Your task to perform on an android device: Search for seafood restaurants on Google Maps Image 0: 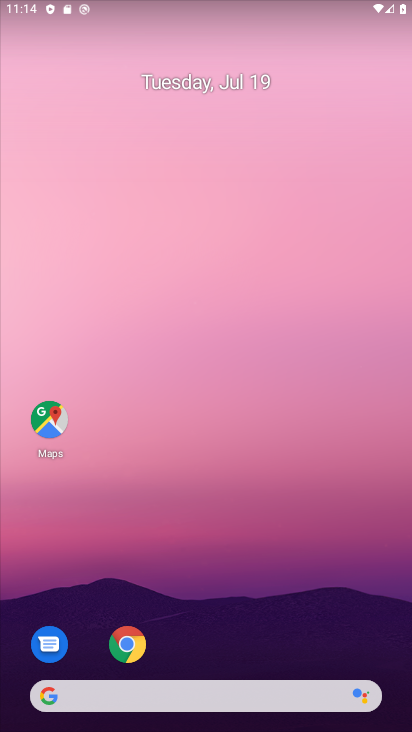
Step 0: press home button
Your task to perform on an android device: Search for seafood restaurants on Google Maps Image 1: 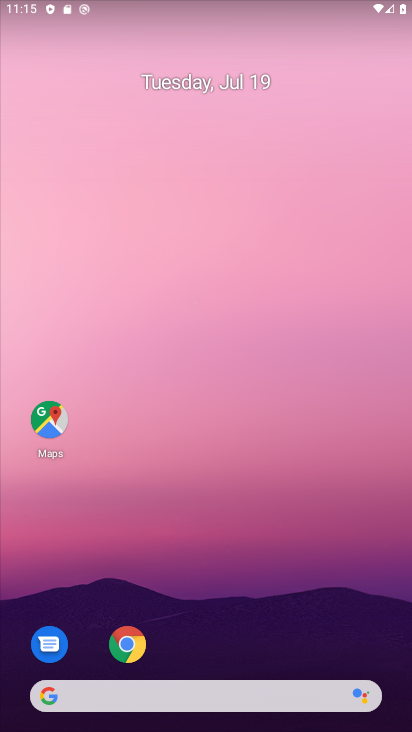
Step 1: click (286, 600)
Your task to perform on an android device: Search for seafood restaurants on Google Maps Image 2: 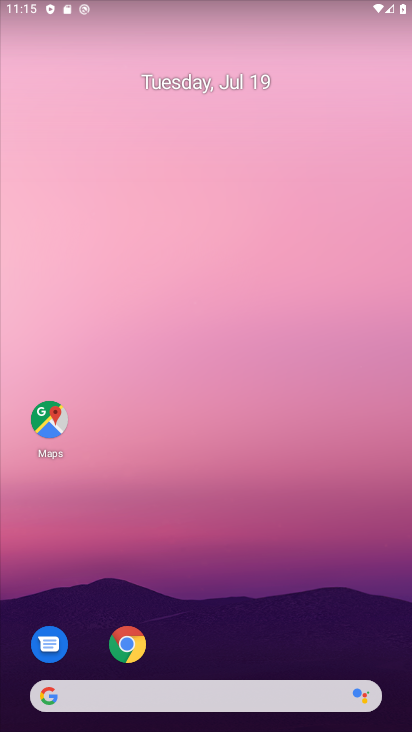
Step 2: click (59, 441)
Your task to perform on an android device: Search for seafood restaurants on Google Maps Image 3: 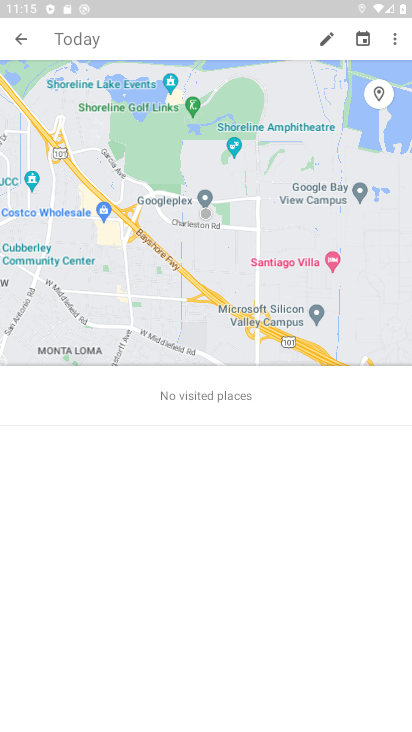
Step 3: click (8, 39)
Your task to perform on an android device: Search for seafood restaurants on Google Maps Image 4: 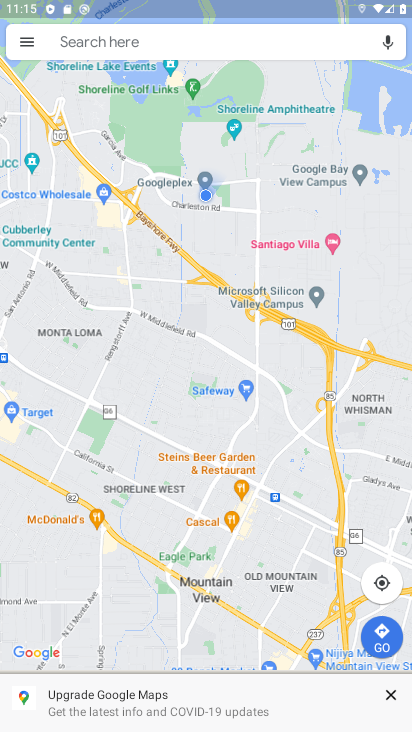
Step 4: click (121, 26)
Your task to perform on an android device: Search for seafood restaurants on Google Maps Image 5: 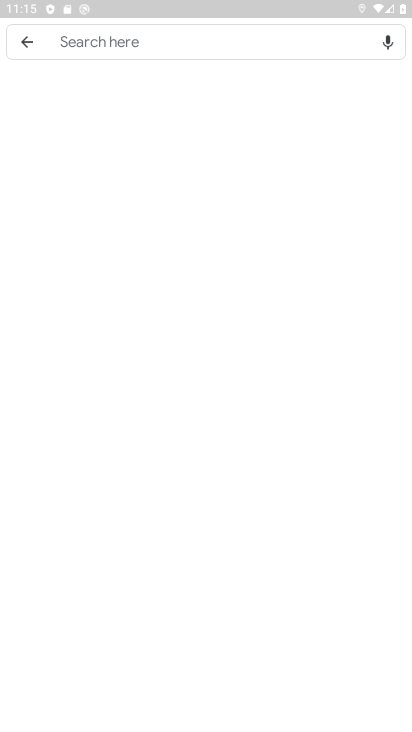
Step 5: click (123, 32)
Your task to perform on an android device: Search for seafood restaurants on Google Maps Image 6: 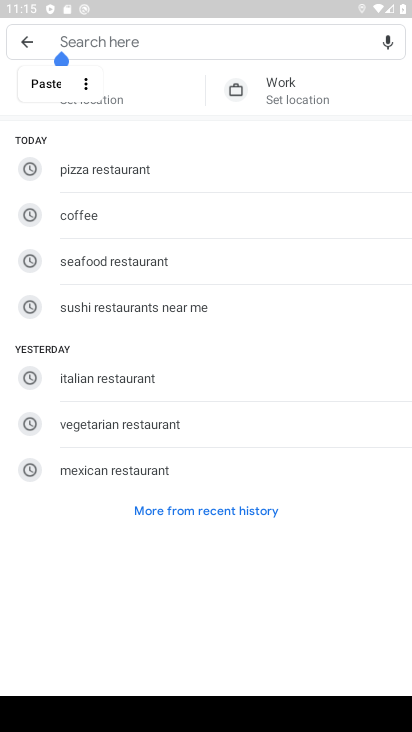
Step 6: type " seafood restaurants"
Your task to perform on an android device: Search for seafood restaurants on Google Maps Image 7: 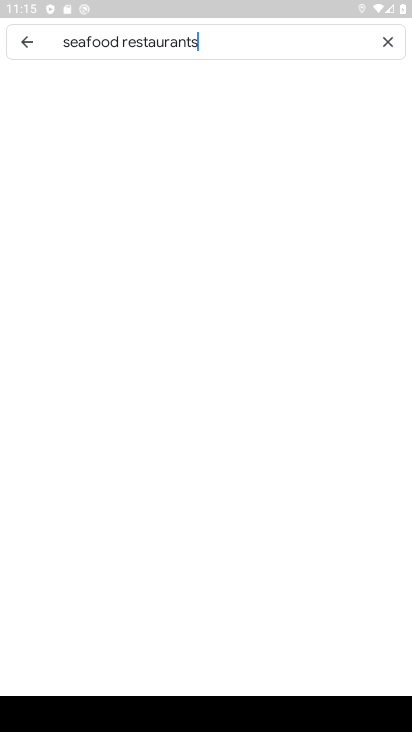
Step 7: type ""
Your task to perform on an android device: Search for seafood restaurants on Google Maps Image 8: 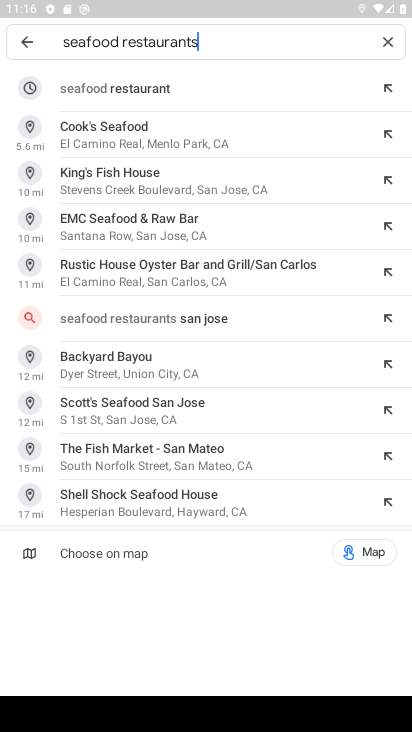
Step 8: click (129, 100)
Your task to perform on an android device: Search for seafood restaurants on Google Maps Image 9: 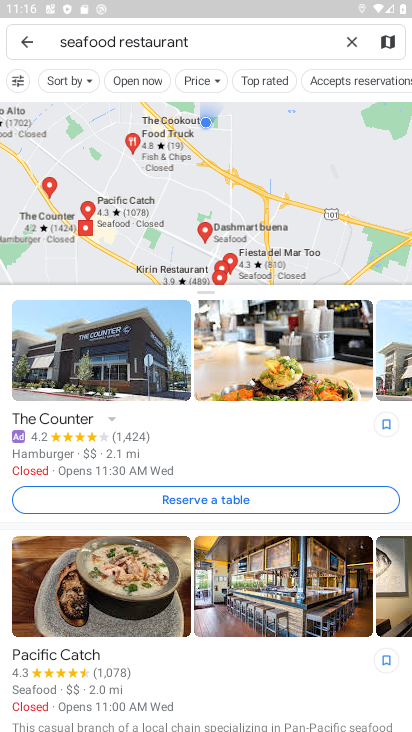
Step 9: task complete